Your task to perform on an android device: Open Chrome and go to settings Image 0: 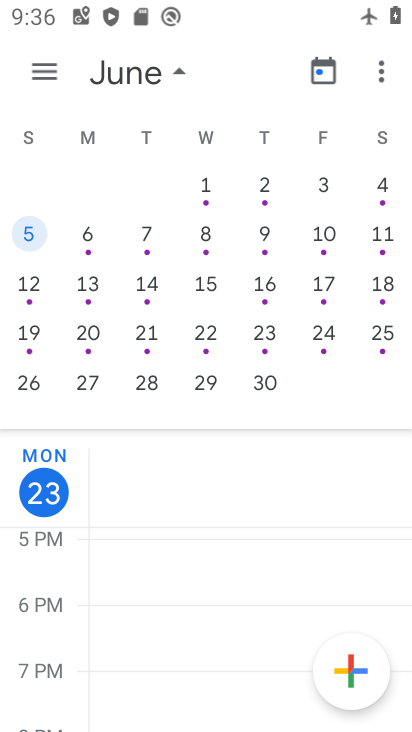
Step 0: press home button
Your task to perform on an android device: Open Chrome and go to settings Image 1: 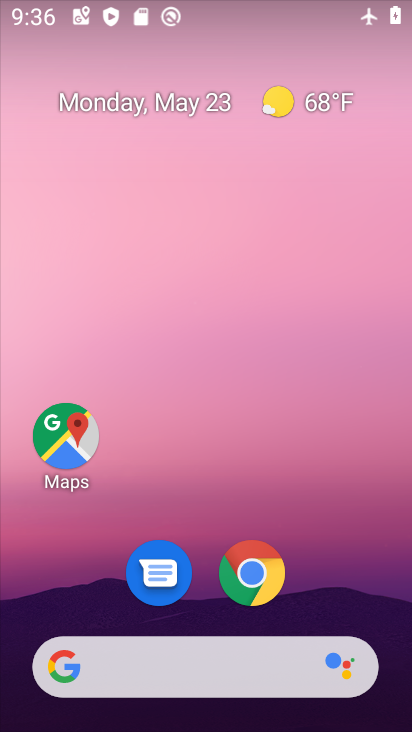
Step 1: drag from (234, 680) to (268, 238)
Your task to perform on an android device: Open Chrome and go to settings Image 2: 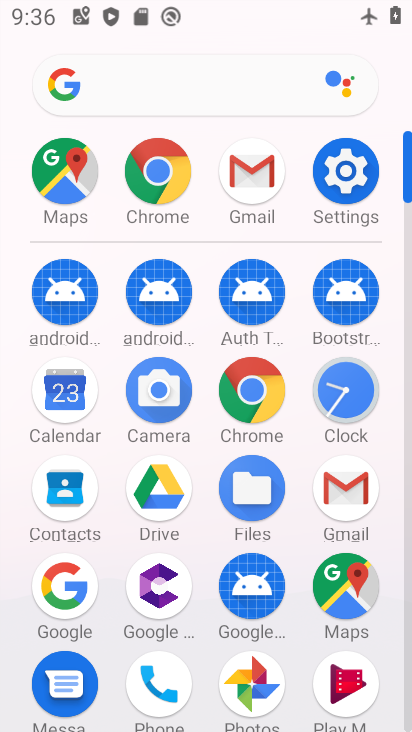
Step 2: click (262, 409)
Your task to perform on an android device: Open Chrome and go to settings Image 3: 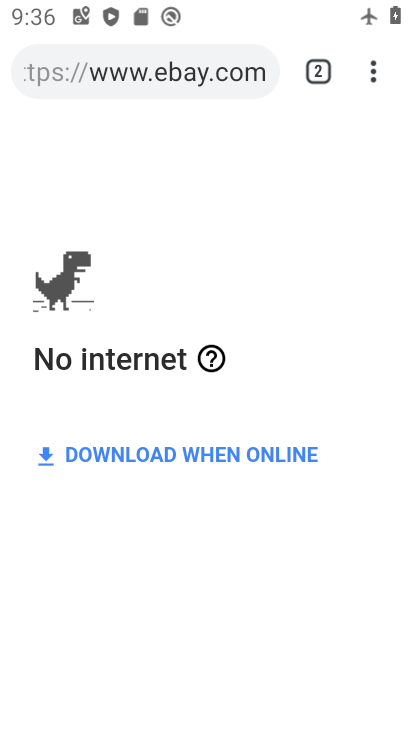
Step 3: click (379, 72)
Your task to perform on an android device: Open Chrome and go to settings Image 4: 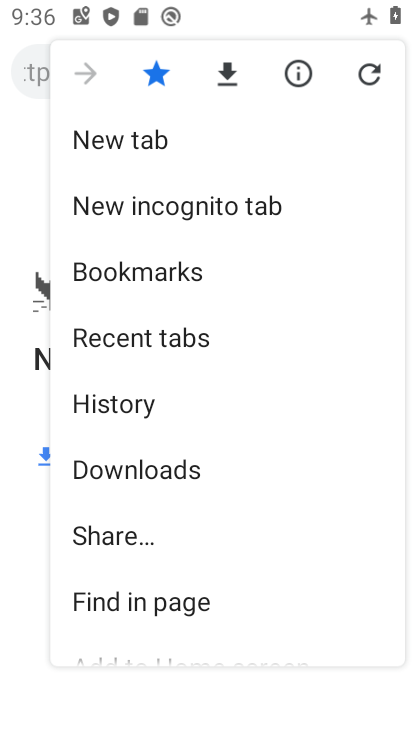
Step 4: drag from (182, 567) to (234, 212)
Your task to perform on an android device: Open Chrome and go to settings Image 5: 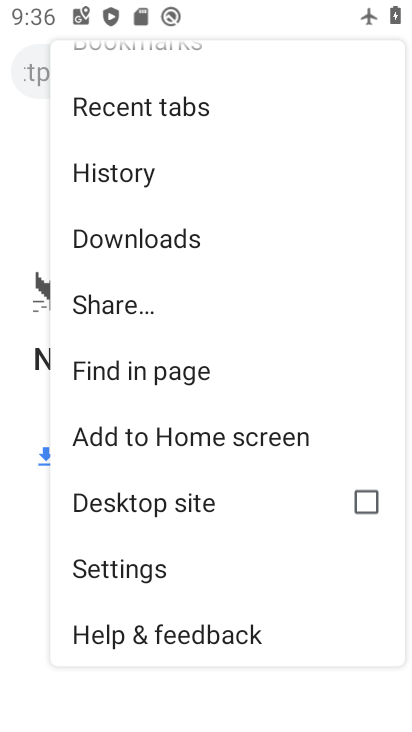
Step 5: click (178, 565)
Your task to perform on an android device: Open Chrome and go to settings Image 6: 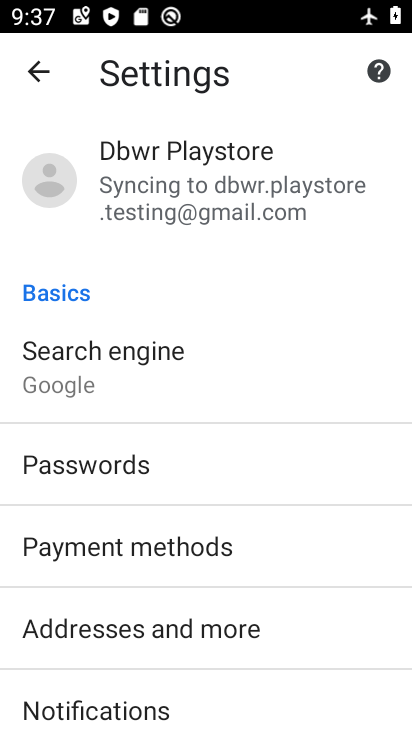
Step 6: task complete